Your task to perform on an android device: empty trash in the gmail app Image 0: 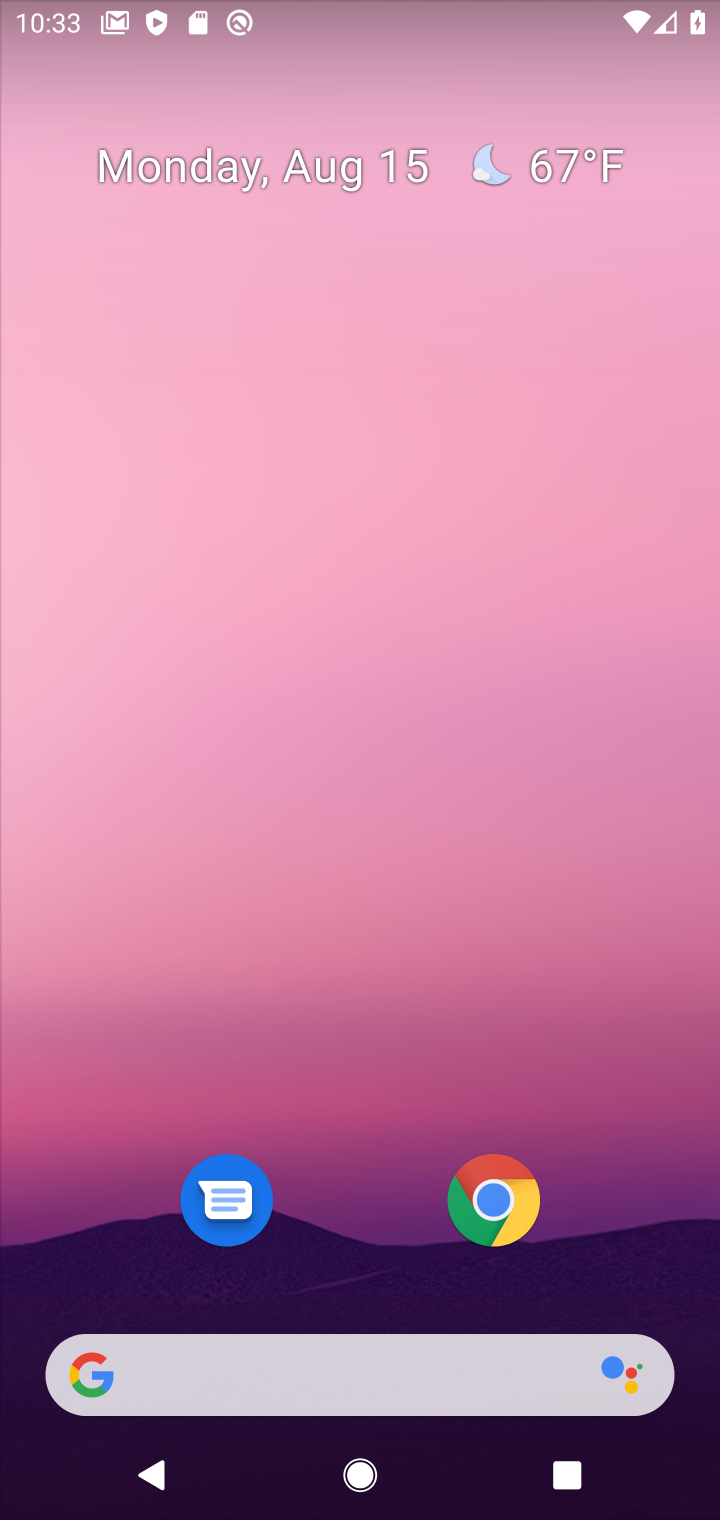
Step 0: press home button
Your task to perform on an android device: empty trash in the gmail app Image 1: 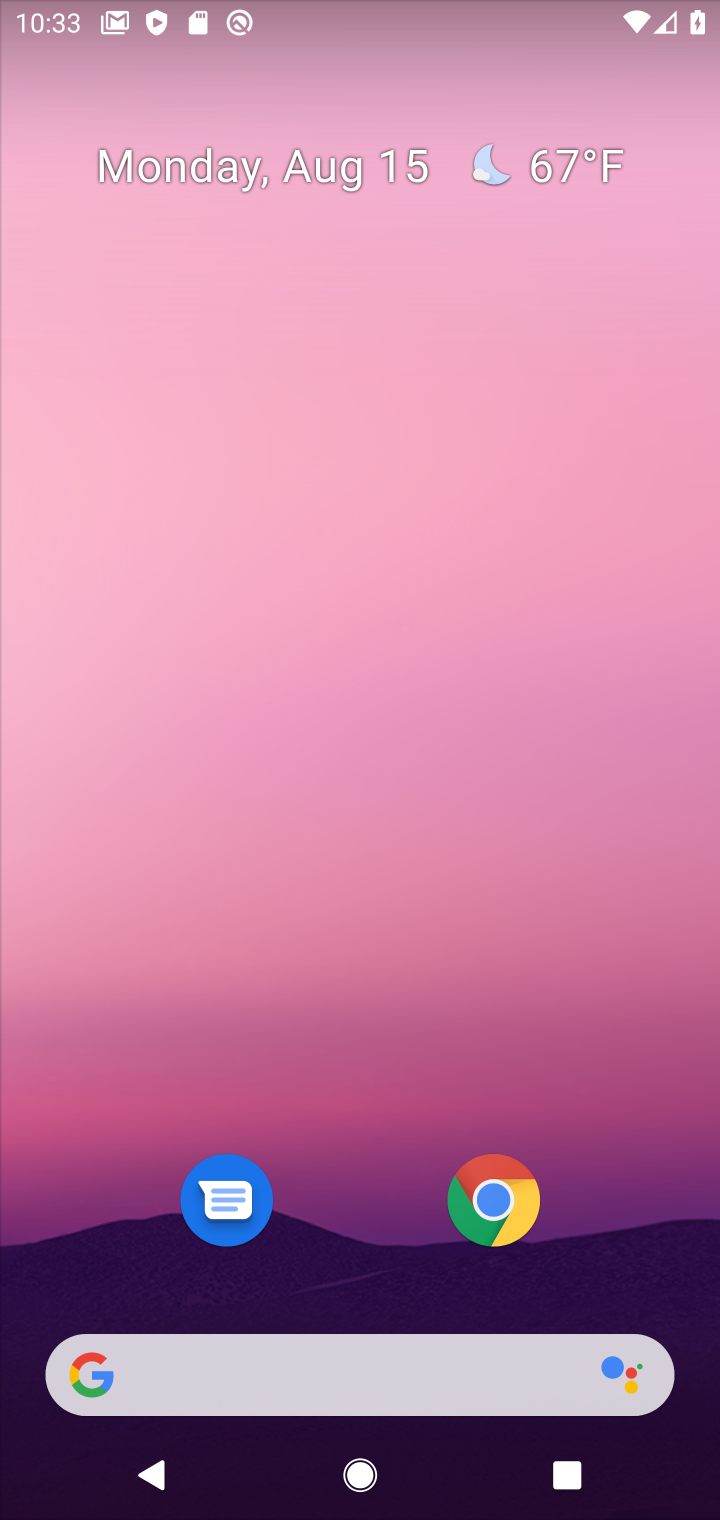
Step 1: press home button
Your task to perform on an android device: empty trash in the gmail app Image 2: 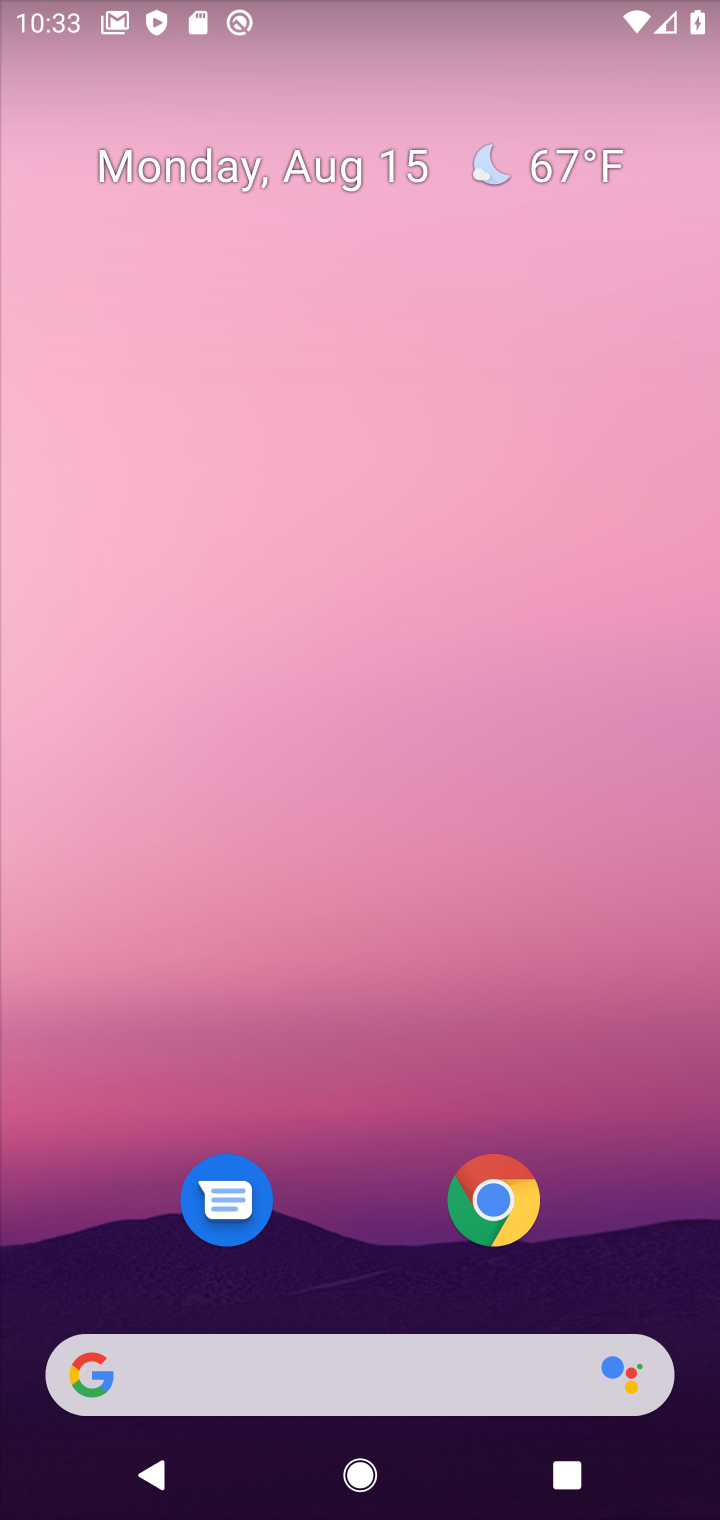
Step 2: drag from (344, 1083) to (464, 242)
Your task to perform on an android device: empty trash in the gmail app Image 3: 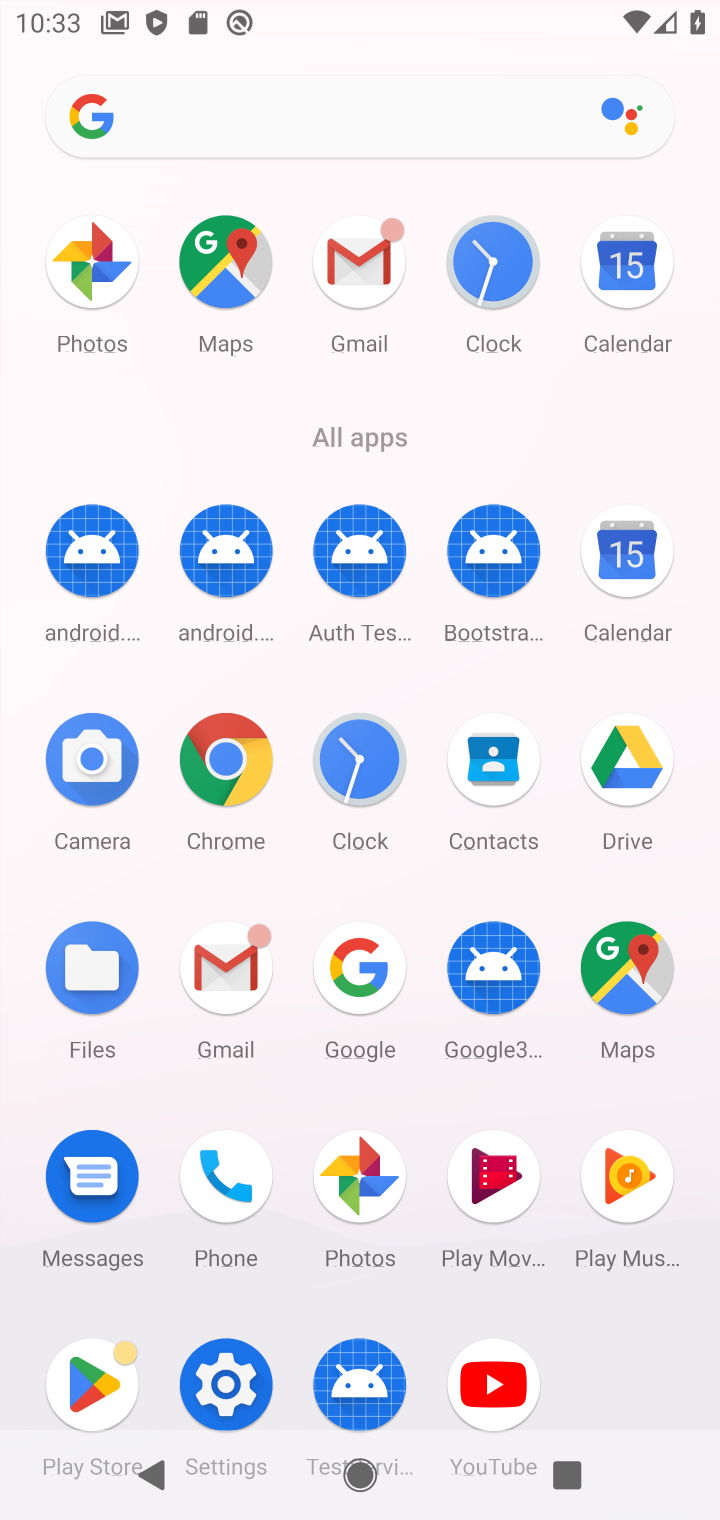
Step 3: click (232, 946)
Your task to perform on an android device: empty trash in the gmail app Image 4: 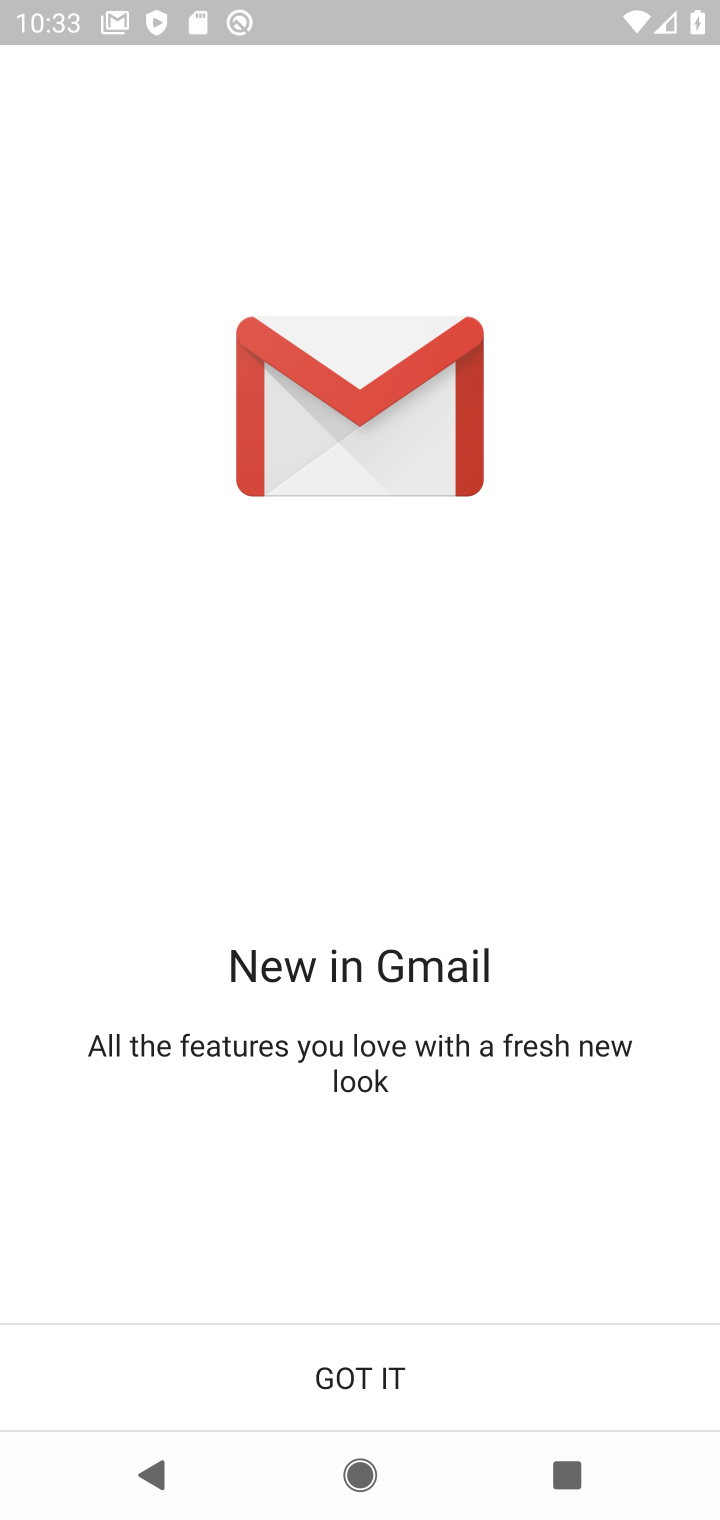
Step 4: click (361, 1357)
Your task to perform on an android device: empty trash in the gmail app Image 5: 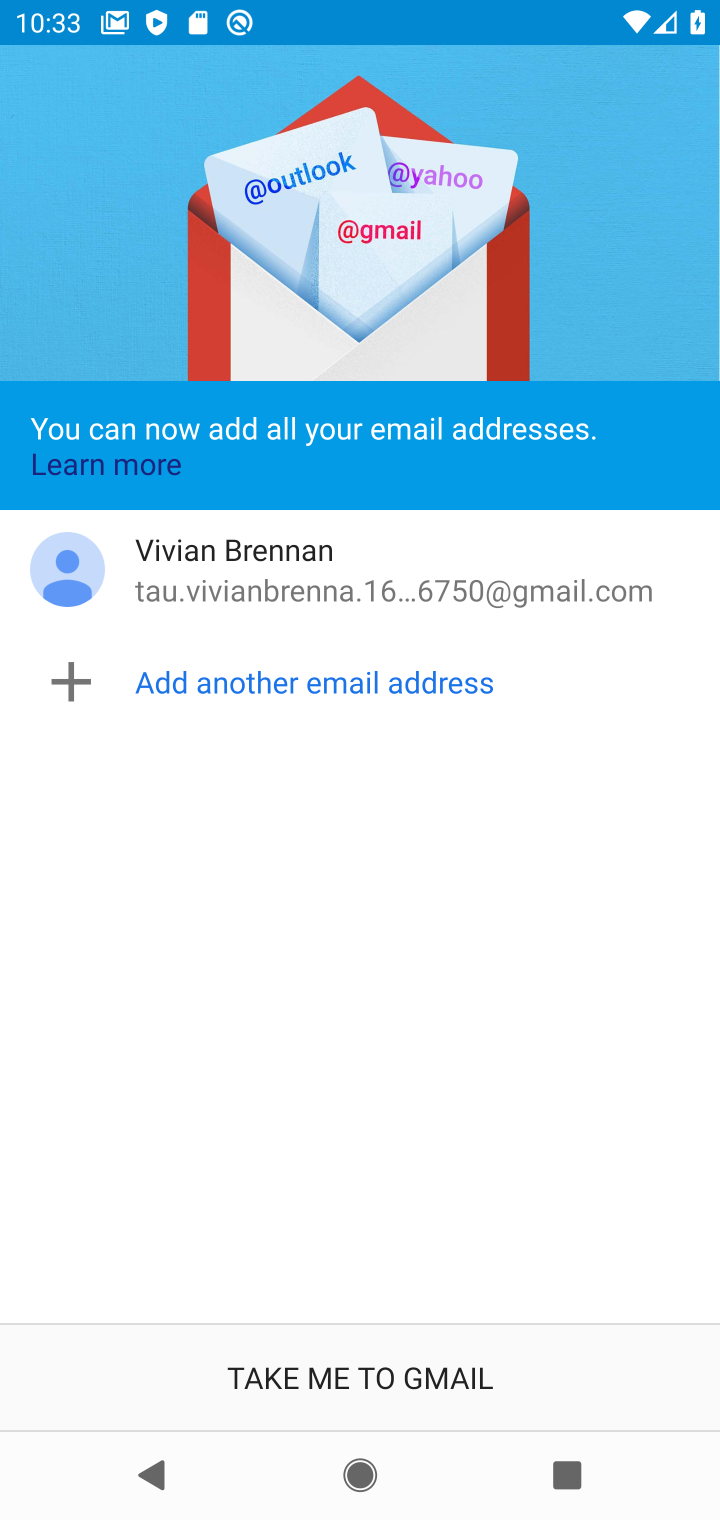
Step 5: click (389, 1364)
Your task to perform on an android device: empty trash in the gmail app Image 6: 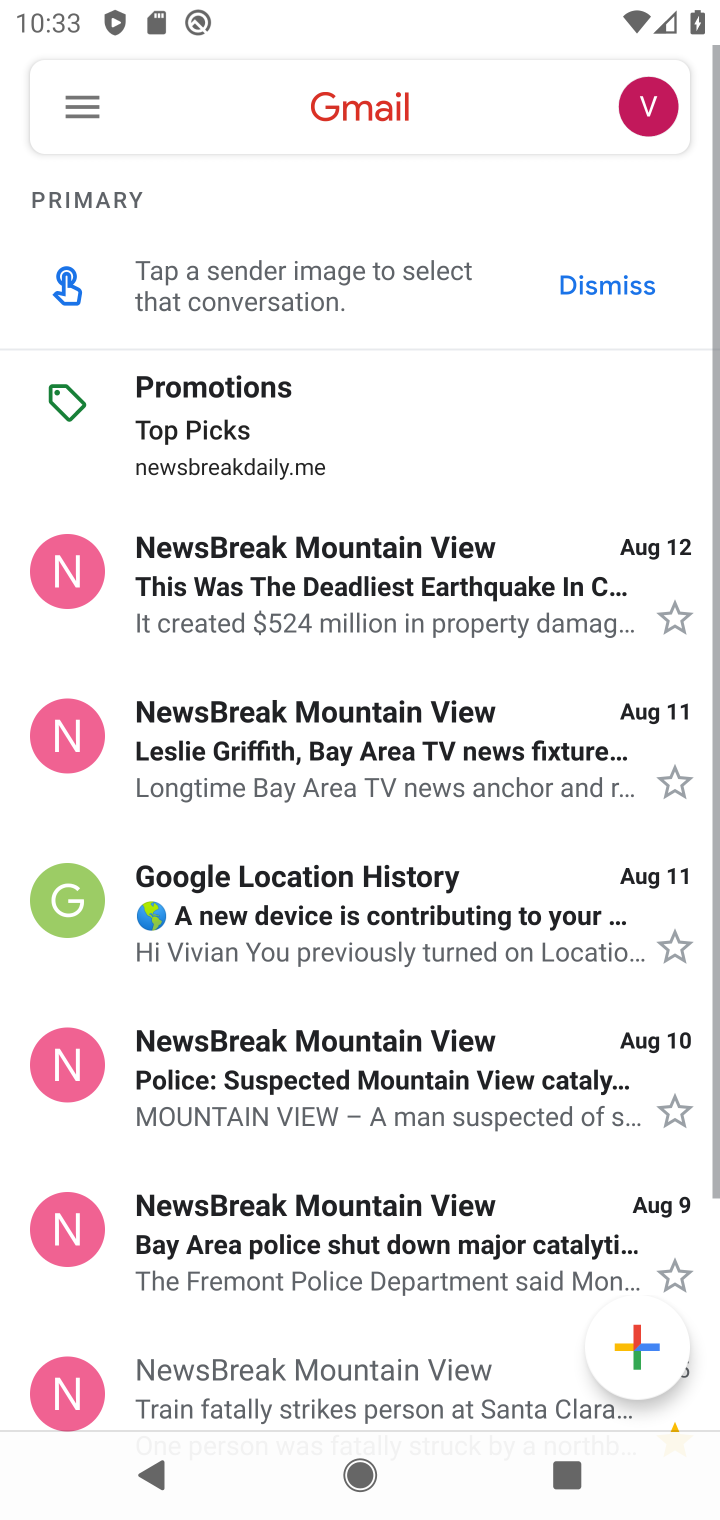
Step 6: click (81, 119)
Your task to perform on an android device: empty trash in the gmail app Image 7: 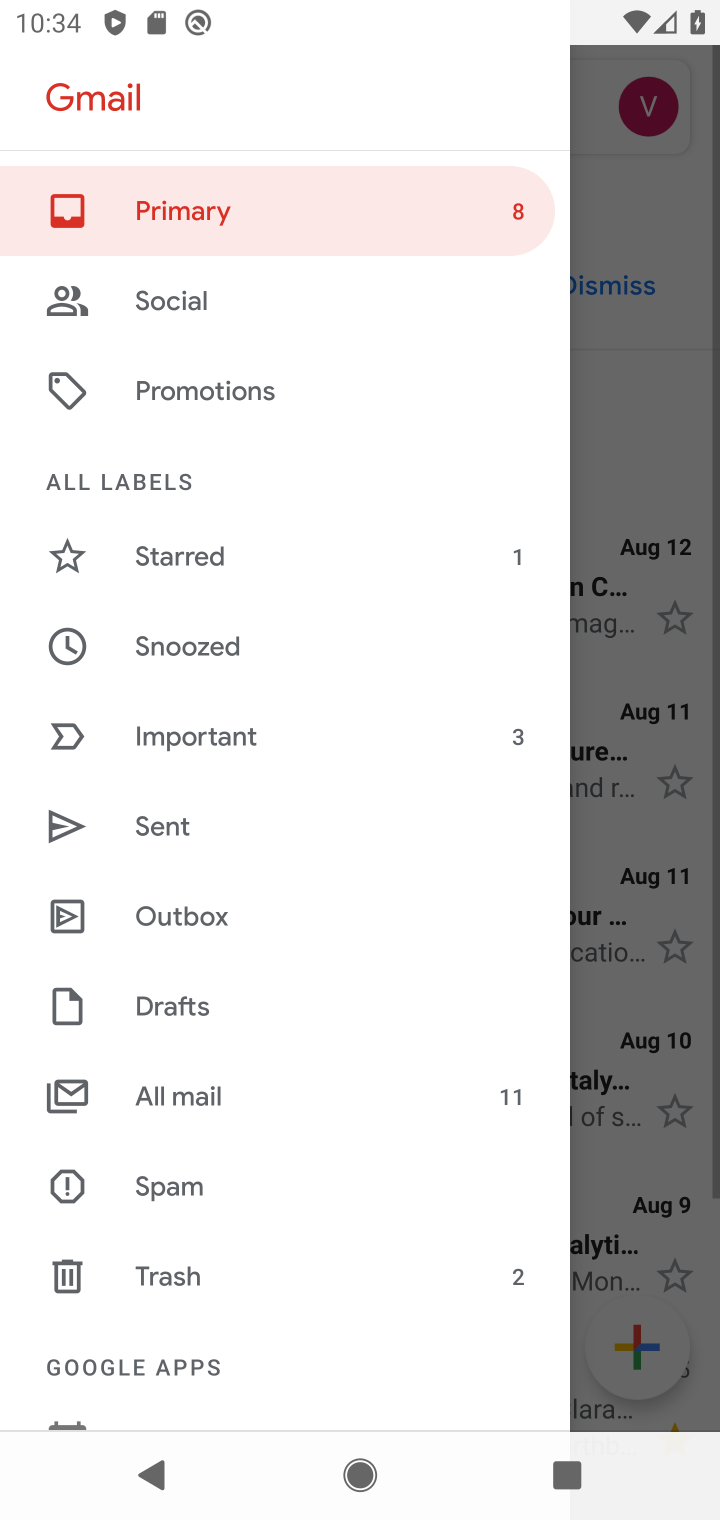
Step 7: click (183, 1288)
Your task to perform on an android device: empty trash in the gmail app Image 8: 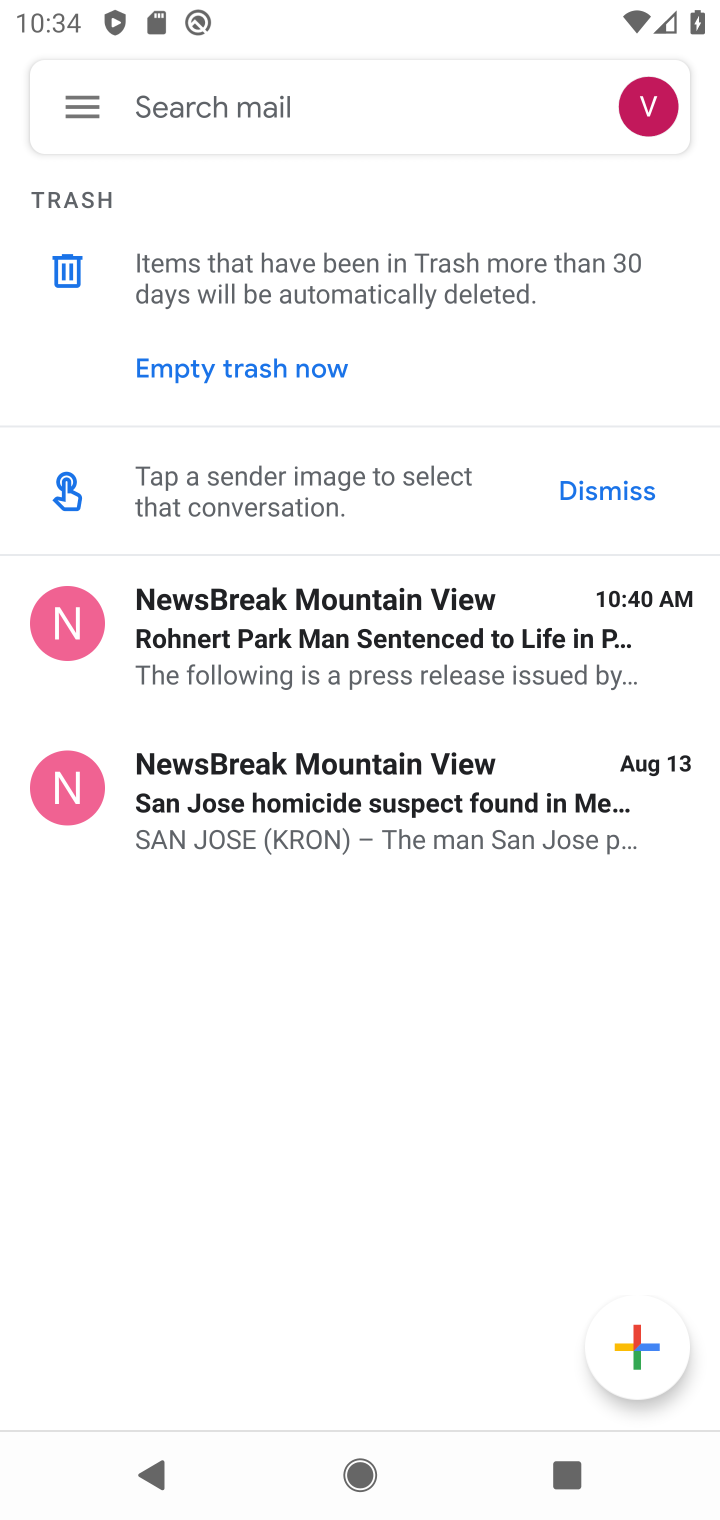
Step 8: click (211, 368)
Your task to perform on an android device: empty trash in the gmail app Image 9: 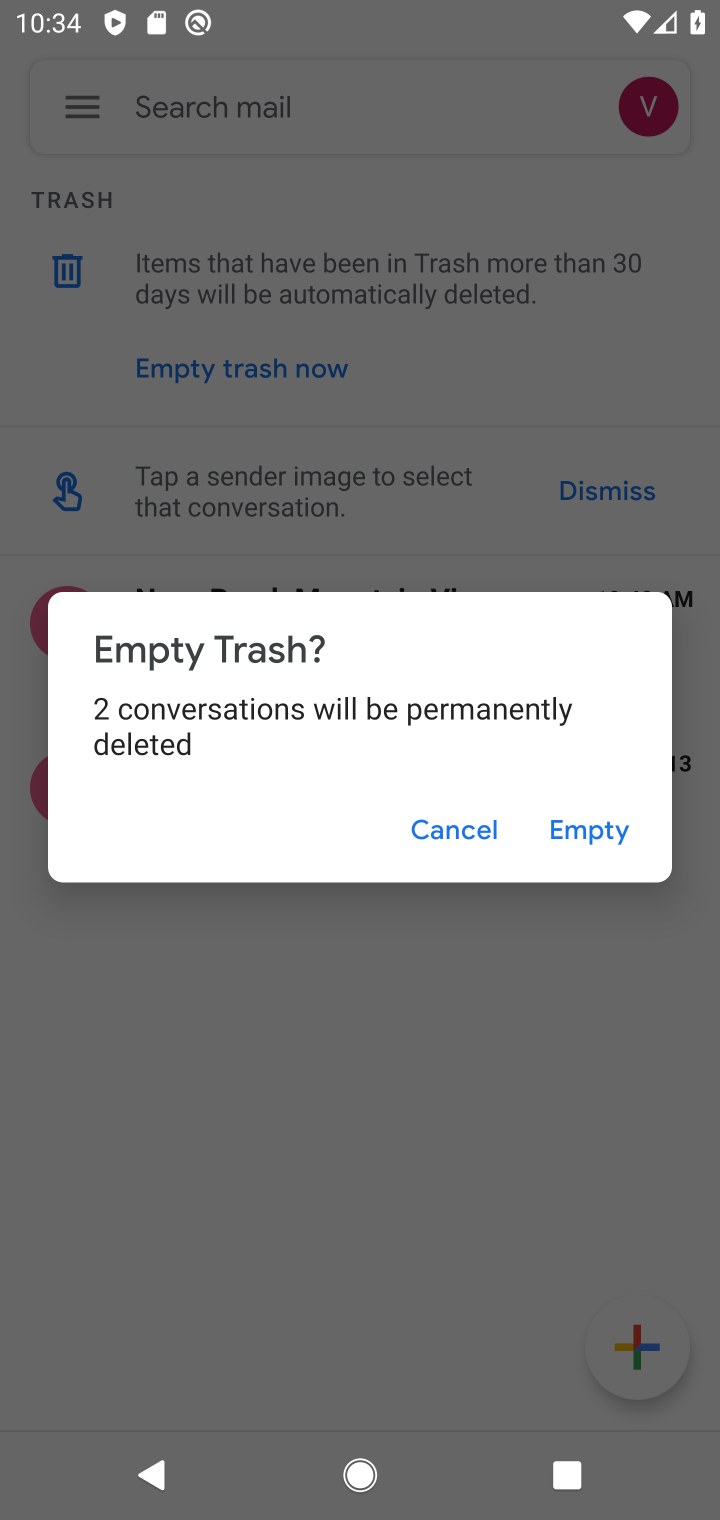
Step 9: click (595, 832)
Your task to perform on an android device: empty trash in the gmail app Image 10: 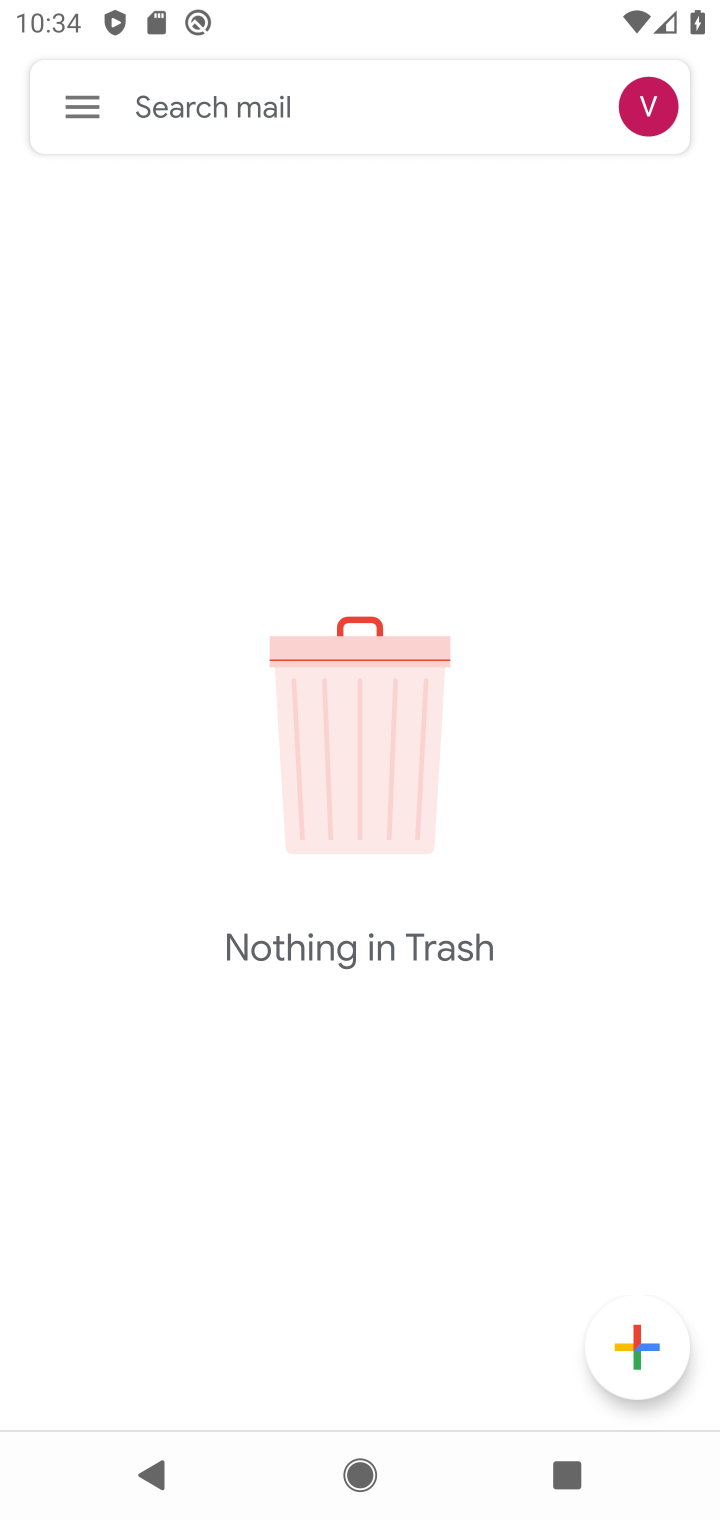
Step 10: task complete